Your task to perform on an android device: open chrome privacy settings Image 0: 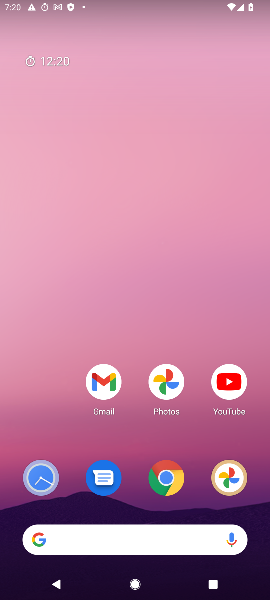
Step 0: drag from (131, 514) to (150, 20)
Your task to perform on an android device: open chrome privacy settings Image 1: 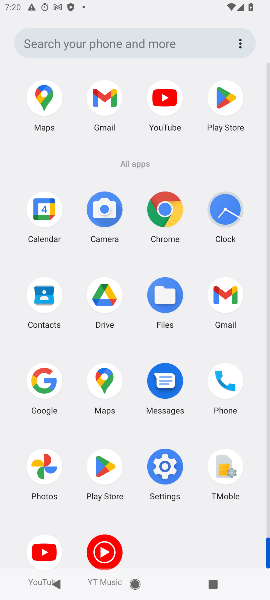
Step 1: click (164, 215)
Your task to perform on an android device: open chrome privacy settings Image 2: 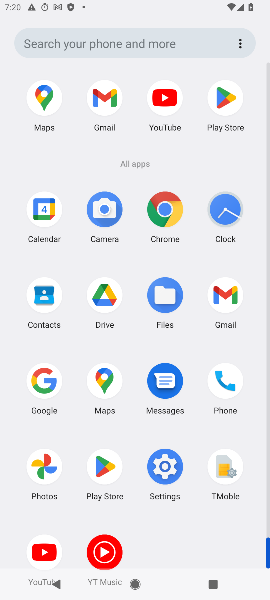
Step 2: click (164, 215)
Your task to perform on an android device: open chrome privacy settings Image 3: 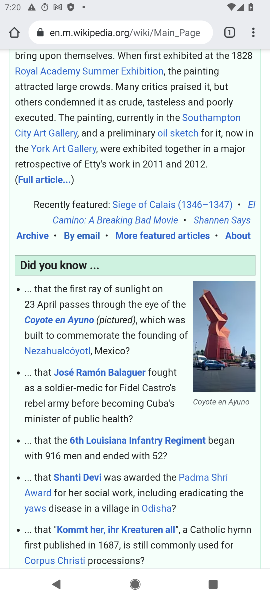
Step 3: drag from (143, 448) to (144, 34)
Your task to perform on an android device: open chrome privacy settings Image 4: 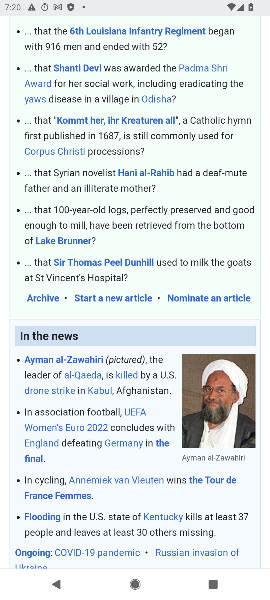
Step 4: drag from (132, 396) to (159, 47)
Your task to perform on an android device: open chrome privacy settings Image 5: 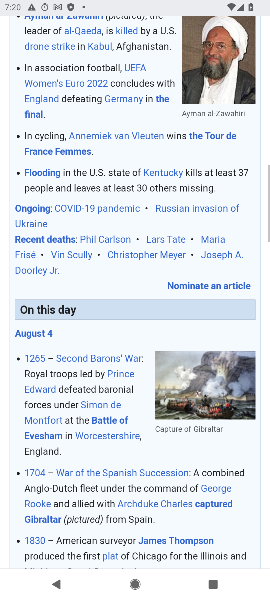
Step 5: drag from (165, 98) to (125, 587)
Your task to perform on an android device: open chrome privacy settings Image 6: 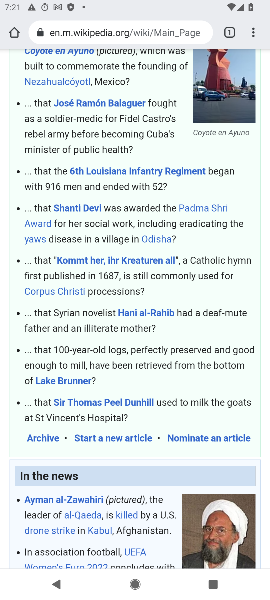
Step 6: drag from (142, 552) to (123, 184)
Your task to perform on an android device: open chrome privacy settings Image 7: 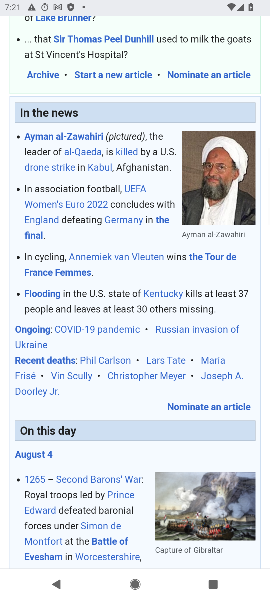
Step 7: drag from (147, 206) to (267, 441)
Your task to perform on an android device: open chrome privacy settings Image 8: 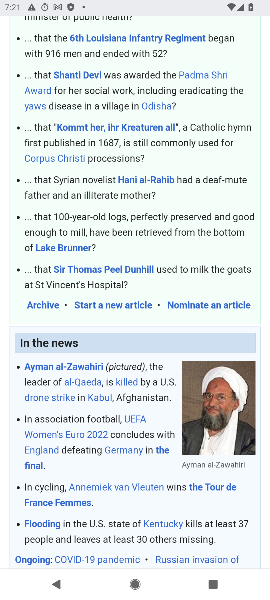
Step 8: drag from (254, 59) to (252, 187)
Your task to perform on an android device: open chrome privacy settings Image 9: 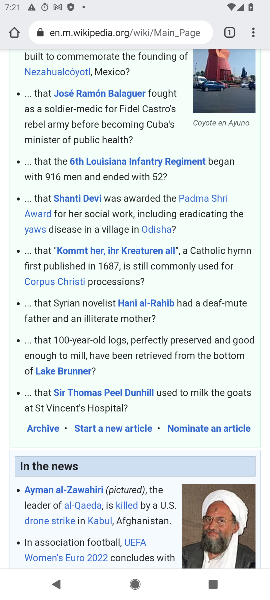
Step 9: click (251, 27)
Your task to perform on an android device: open chrome privacy settings Image 10: 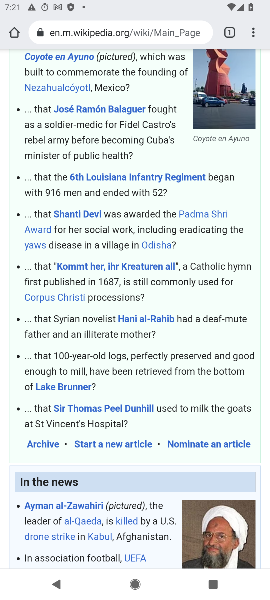
Step 10: drag from (252, 32) to (174, 437)
Your task to perform on an android device: open chrome privacy settings Image 11: 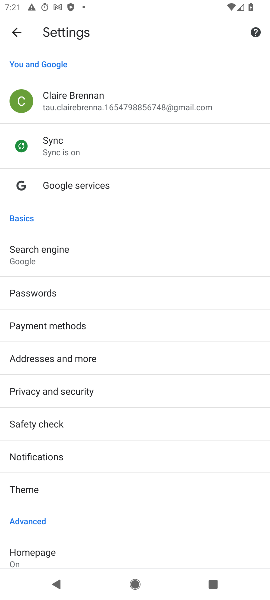
Step 11: drag from (99, 490) to (149, 228)
Your task to perform on an android device: open chrome privacy settings Image 12: 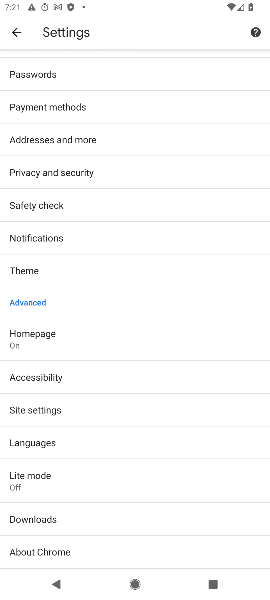
Step 12: drag from (71, 282) to (66, 368)
Your task to perform on an android device: open chrome privacy settings Image 13: 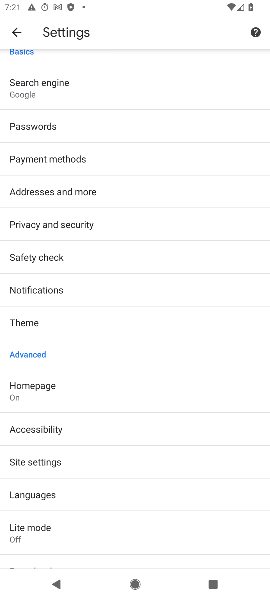
Step 13: click (71, 228)
Your task to perform on an android device: open chrome privacy settings Image 14: 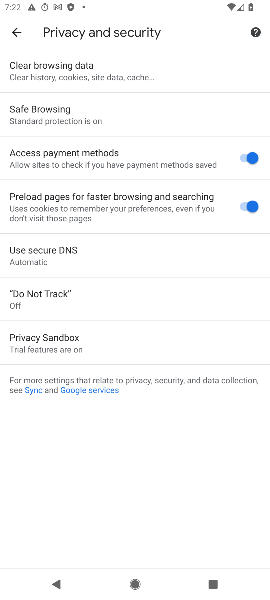
Step 14: click (137, 118)
Your task to perform on an android device: open chrome privacy settings Image 15: 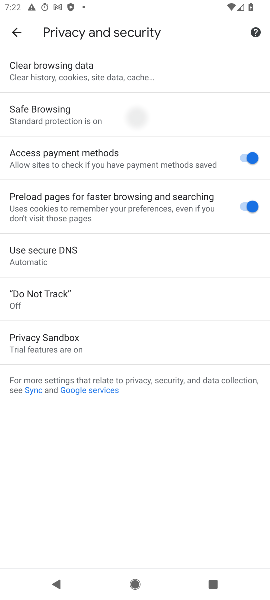
Step 15: drag from (120, 417) to (161, 122)
Your task to perform on an android device: open chrome privacy settings Image 16: 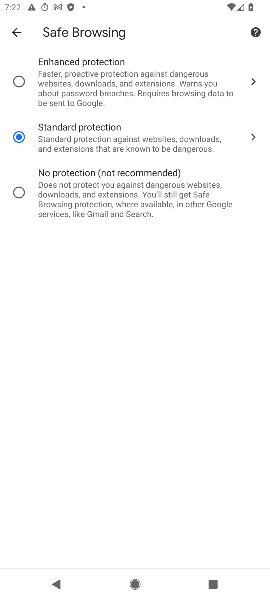
Step 16: drag from (64, 480) to (139, 128)
Your task to perform on an android device: open chrome privacy settings Image 17: 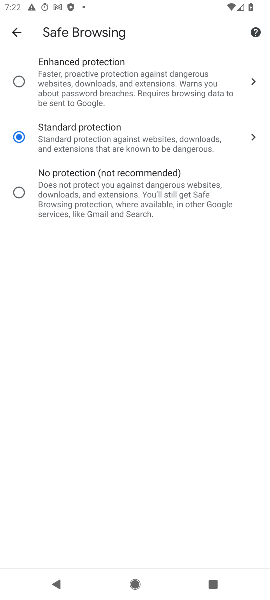
Step 17: click (18, 28)
Your task to perform on an android device: open chrome privacy settings Image 18: 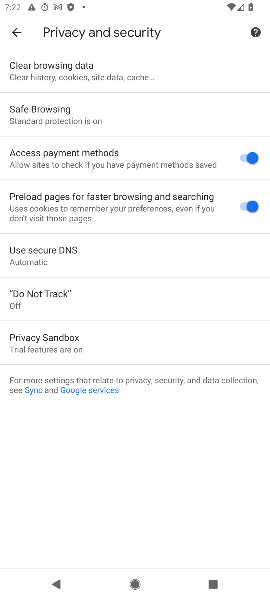
Step 18: task complete